Your task to perform on an android device: Open Google Maps Image 0: 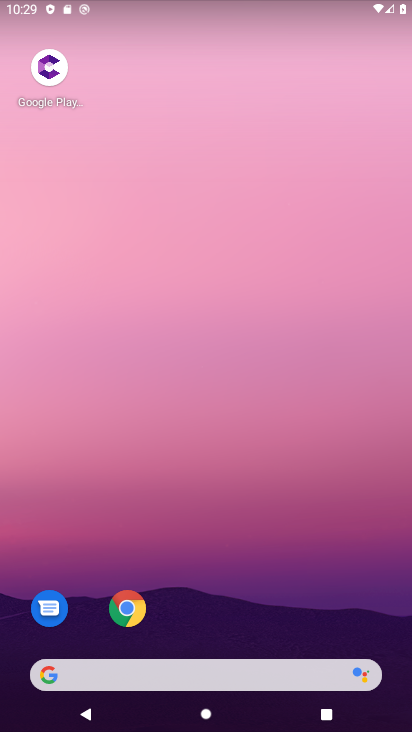
Step 0: drag from (306, 595) to (260, 115)
Your task to perform on an android device: Open Google Maps Image 1: 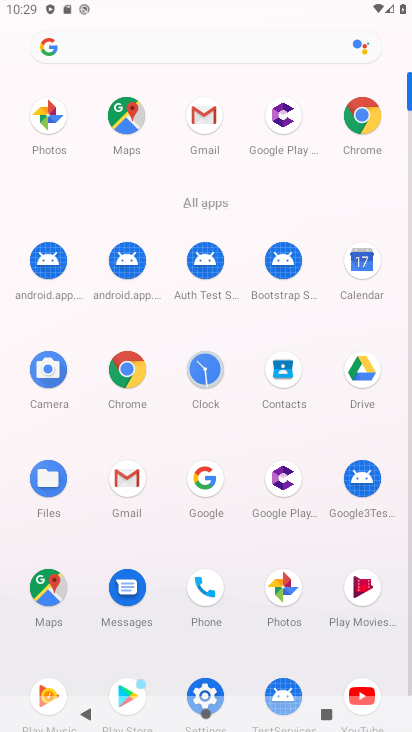
Step 1: click (121, 132)
Your task to perform on an android device: Open Google Maps Image 2: 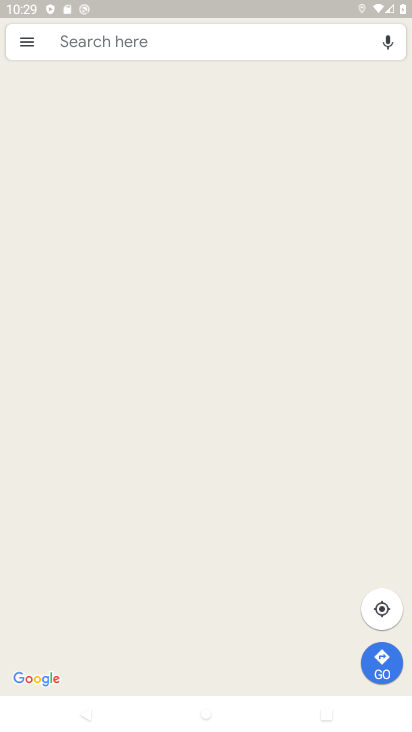
Step 2: task complete